Your task to perform on an android device: install app "Adobe Express: Graphic Design" Image 0: 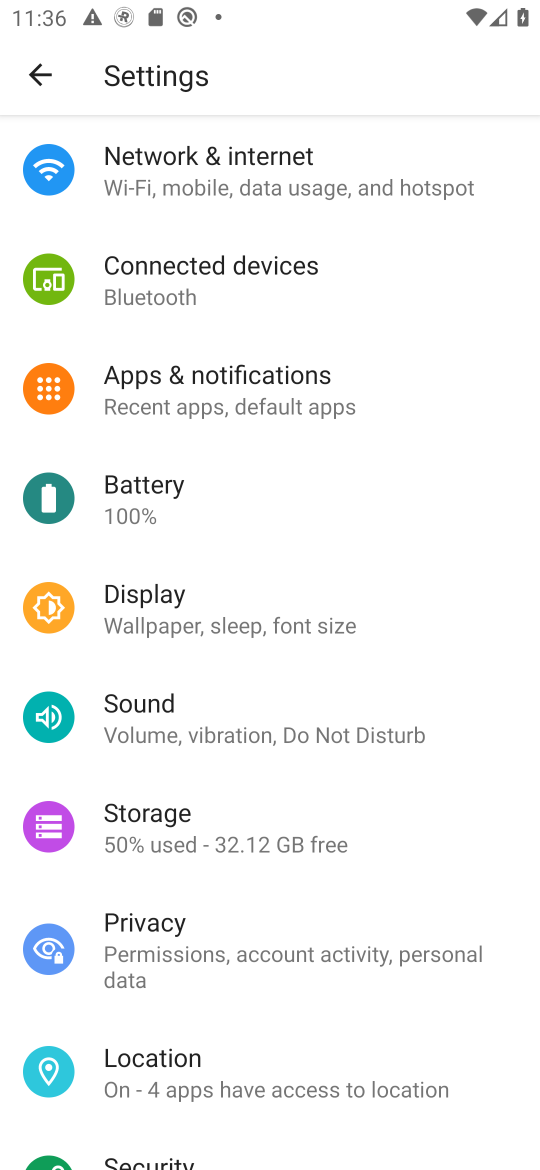
Step 0: press home button
Your task to perform on an android device: install app "Adobe Express: Graphic Design" Image 1: 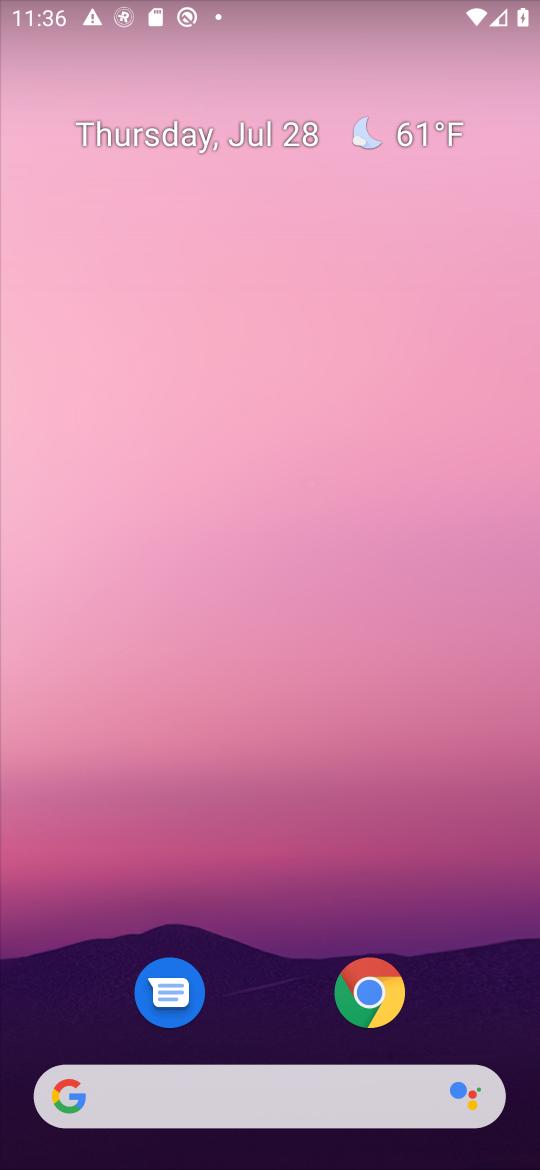
Step 1: drag from (218, 1097) to (347, 77)
Your task to perform on an android device: install app "Adobe Express: Graphic Design" Image 2: 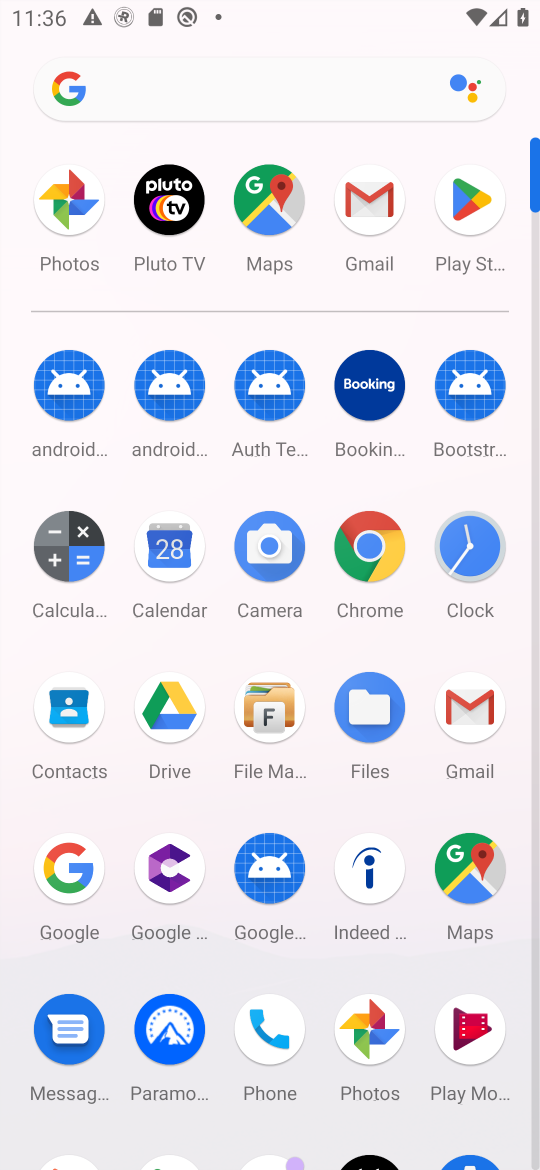
Step 2: drag from (294, 801) to (295, 478)
Your task to perform on an android device: install app "Adobe Express: Graphic Design" Image 3: 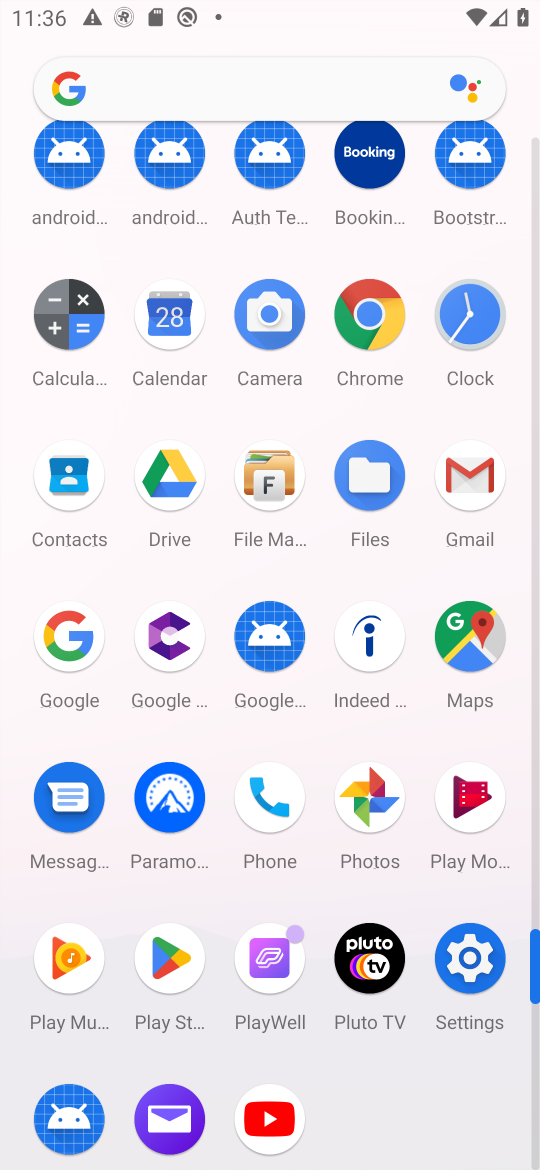
Step 3: click (165, 962)
Your task to perform on an android device: install app "Adobe Express: Graphic Design" Image 4: 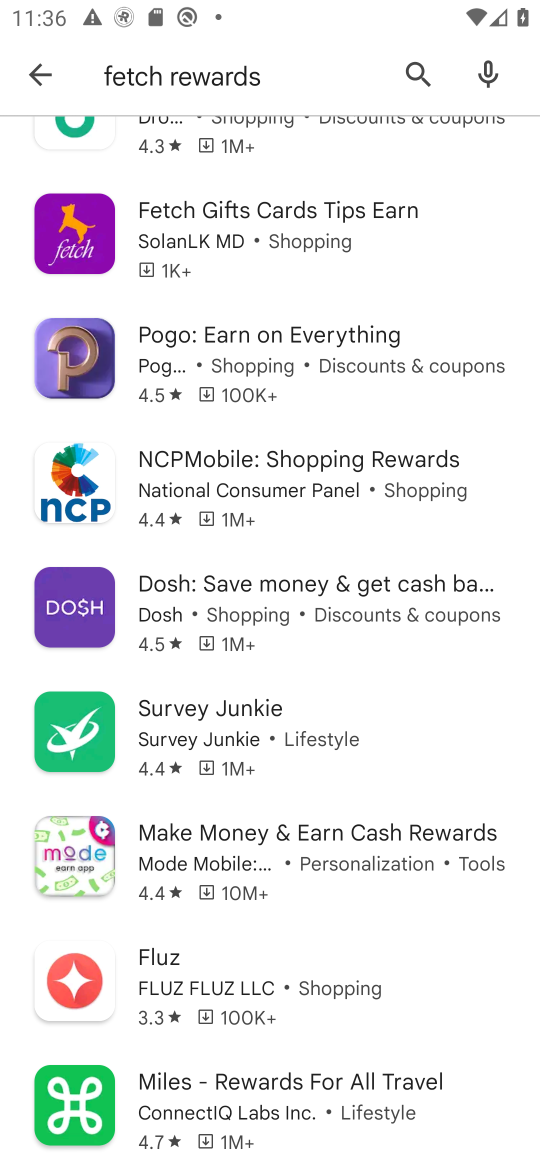
Step 4: click (419, 78)
Your task to perform on an android device: install app "Adobe Express: Graphic Design" Image 5: 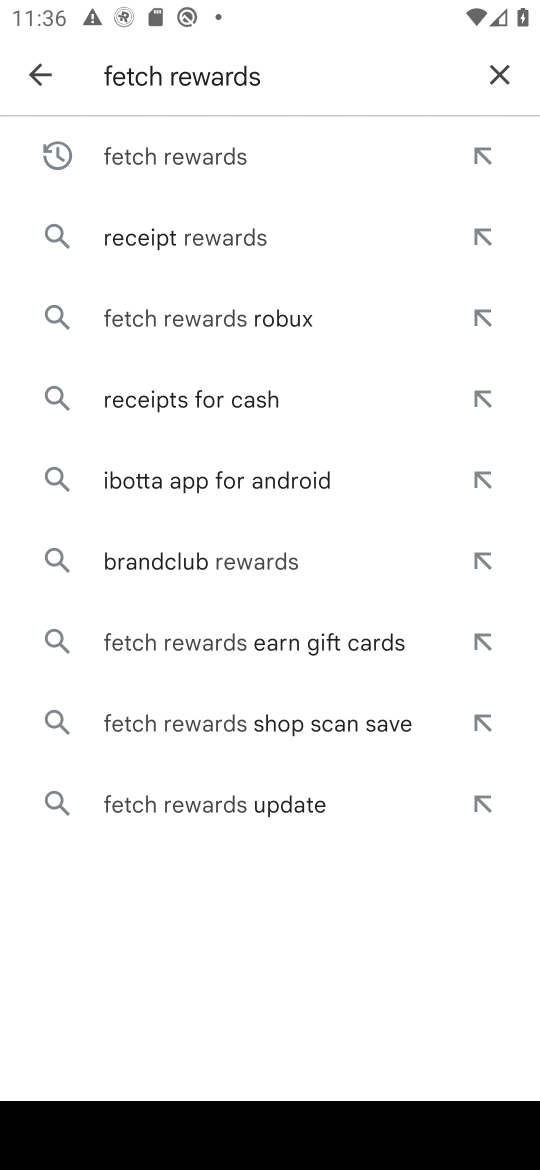
Step 5: click (491, 73)
Your task to perform on an android device: install app "Adobe Express: Graphic Design" Image 6: 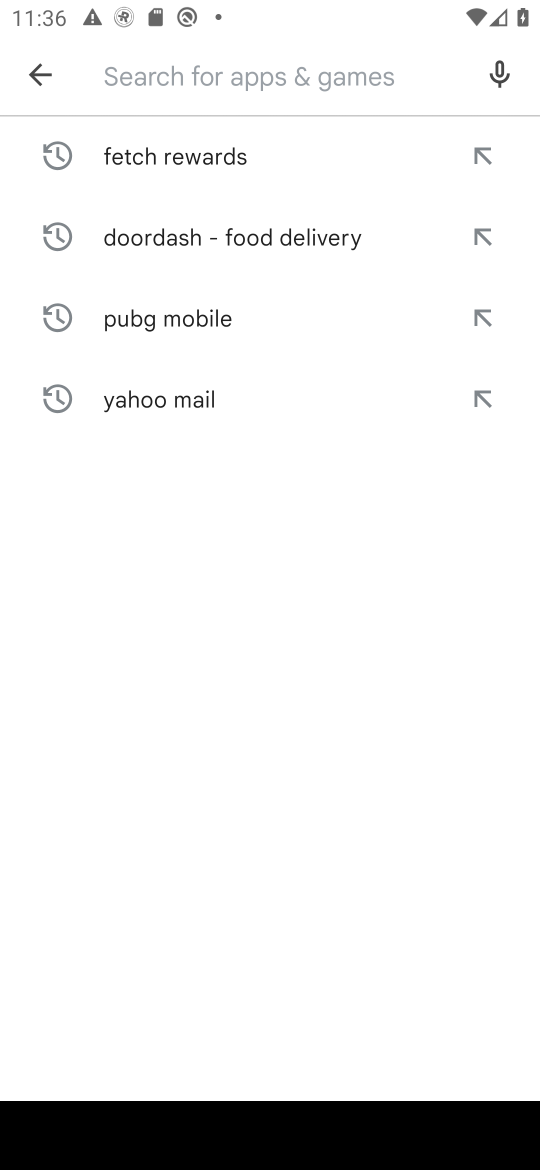
Step 6: click (236, 66)
Your task to perform on an android device: install app "Adobe Express: Graphic Design" Image 7: 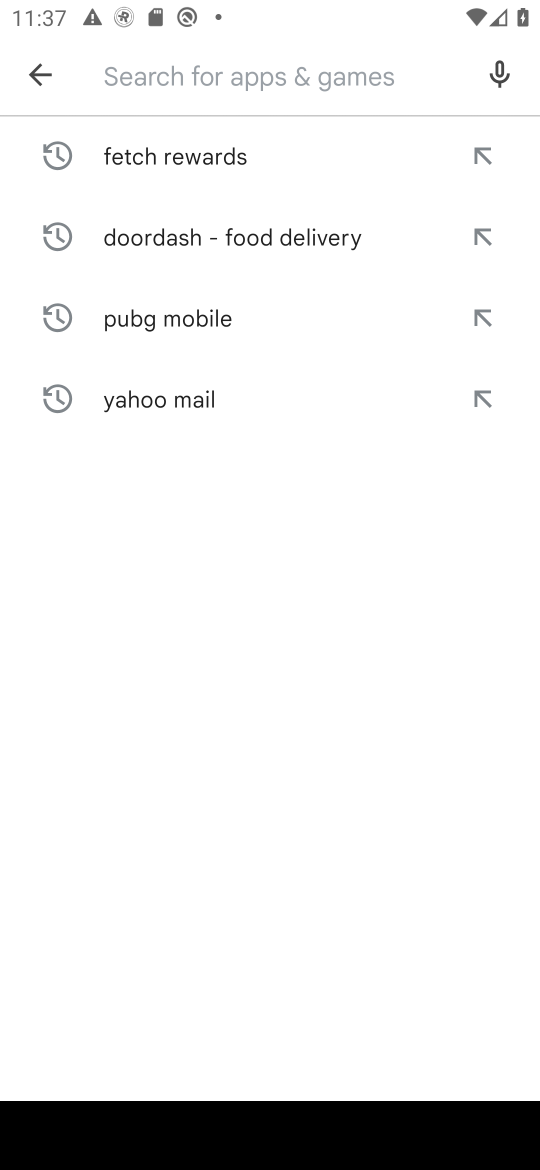
Step 7: type "Adobe Express: Graphic Design"
Your task to perform on an android device: install app "Adobe Express: Graphic Design" Image 8: 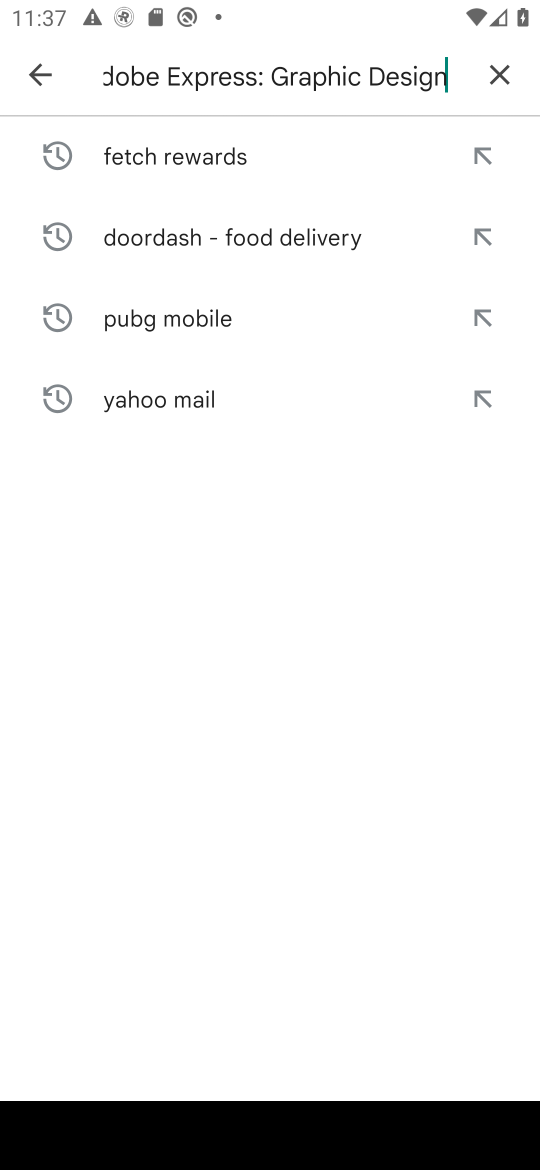
Step 8: type ""
Your task to perform on an android device: install app "Adobe Express: Graphic Design" Image 9: 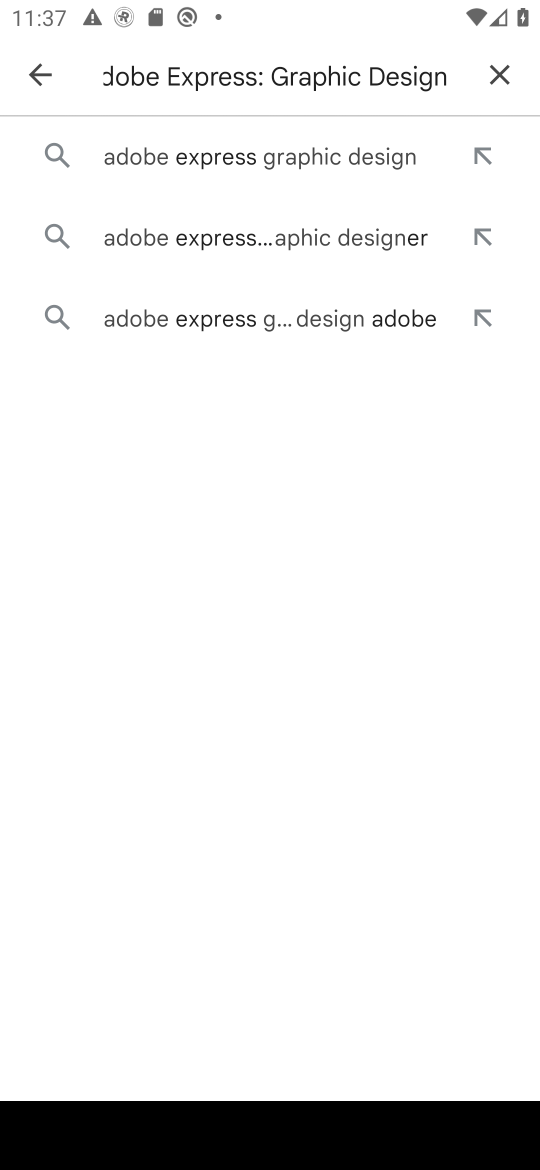
Step 9: click (316, 160)
Your task to perform on an android device: install app "Adobe Express: Graphic Design" Image 10: 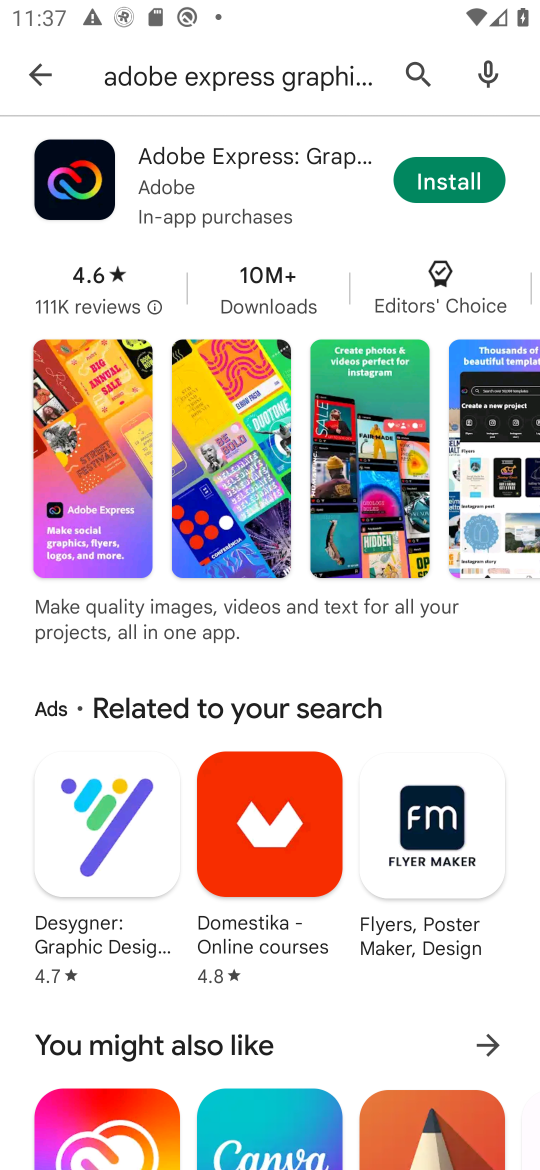
Step 10: click (272, 163)
Your task to perform on an android device: install app "Adobe Express: Graphic Design" Image 11: 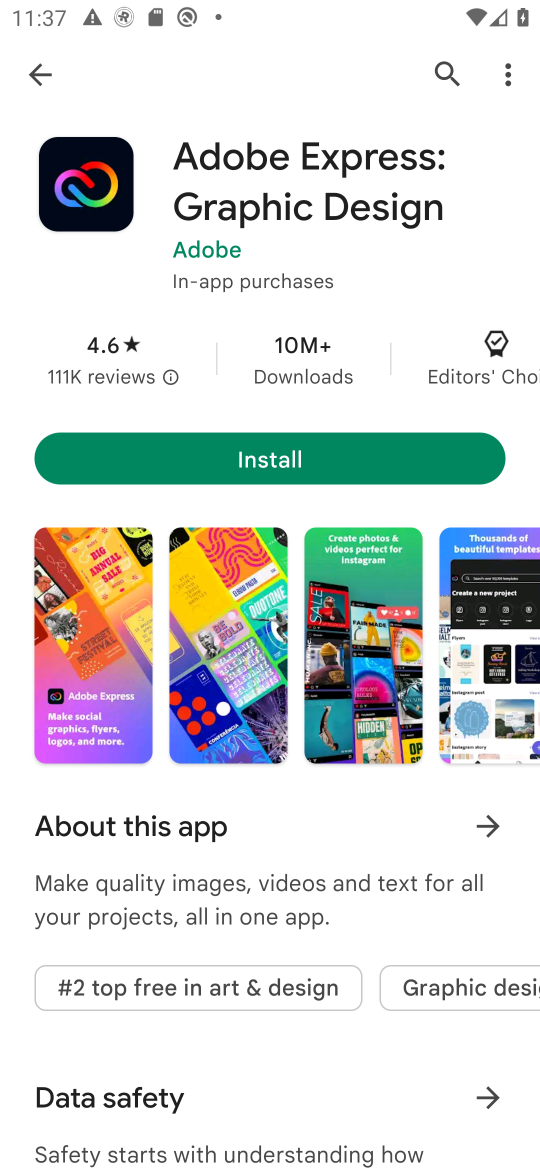
Step 11: click (285, 459)
Your task to perform on an android device: install app "Adobe Express: Graphic Design" Image 12: 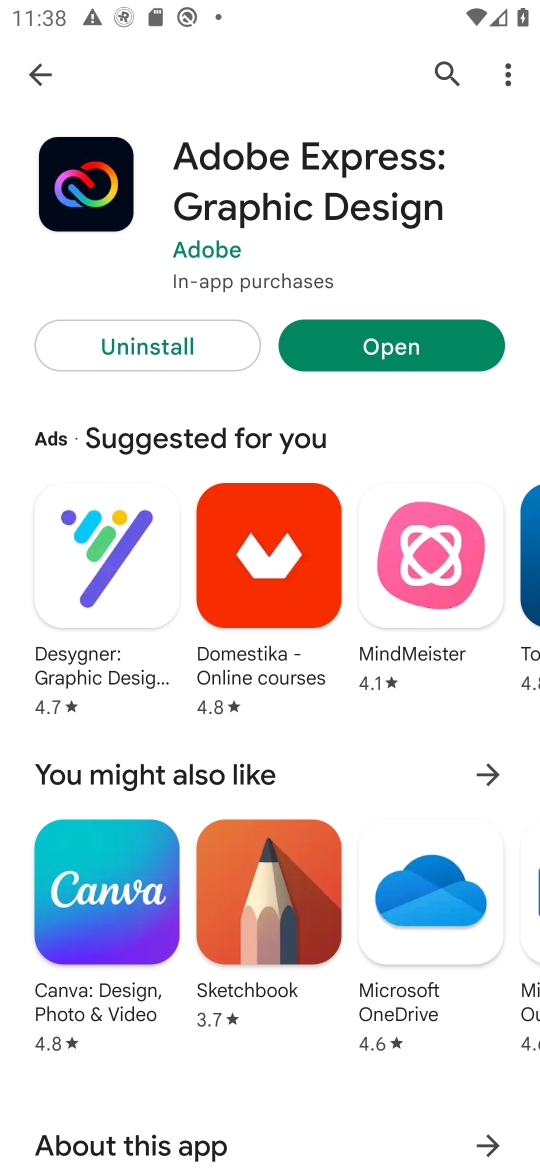
Step 12: task complete